Your task to perform on an android device: turn notification dots off Image 0: 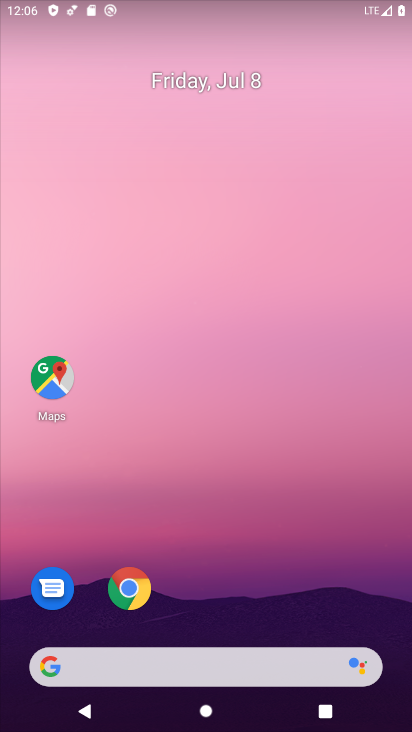
Step 0: drag from (203, 625) to (202, 2)
Your task to perform on an android device: turn notification dots off Image 1: 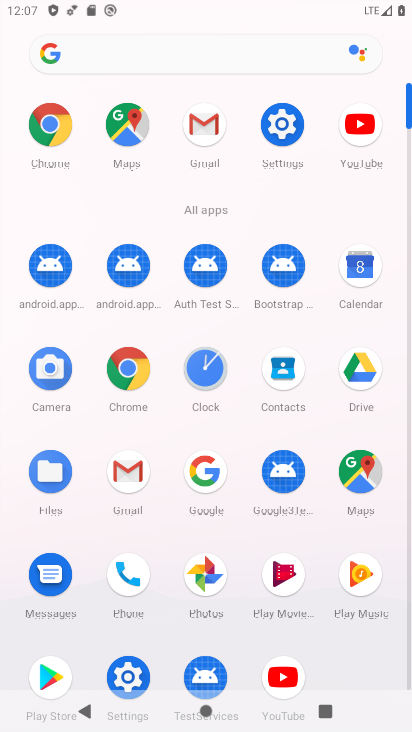
Step 1: click (284, 117)
Your task to perform on an android device: turn notification dots off Image 2: 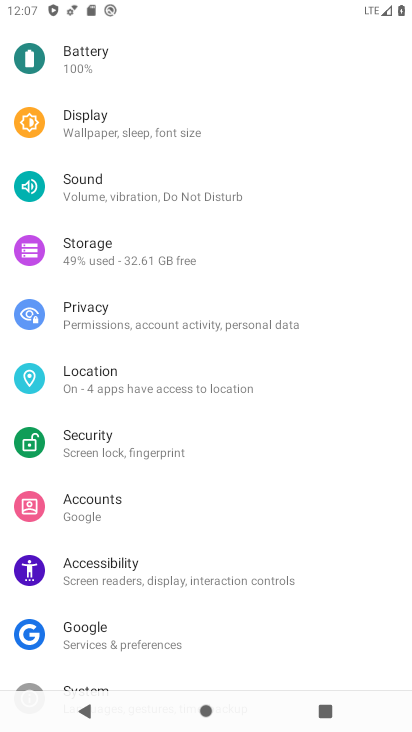
Step 2: drag from (172, 134) to (199, 550)
Your task to perform on an android device: turn notification dots off Image 3: 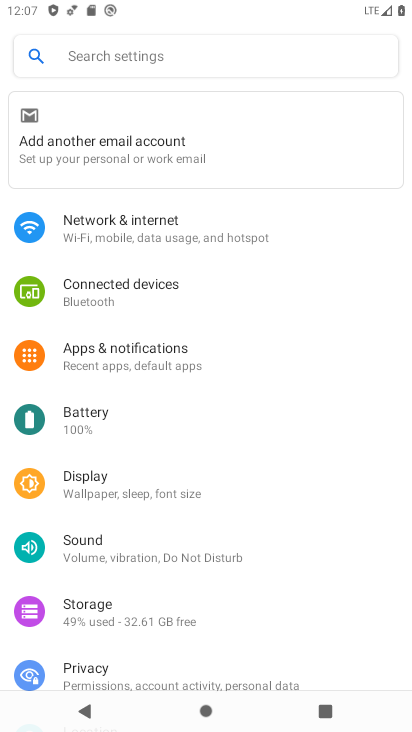
Step 3: click (137, 354)
Your task to perform on an android device: turn notification dots off Image 4: 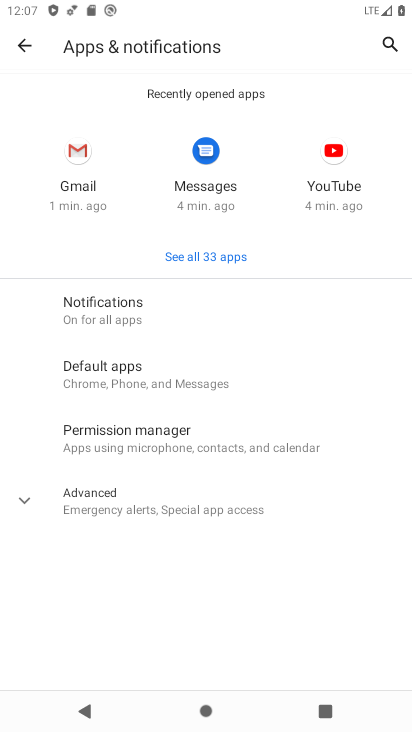
Step 4: click (59, 309)
Your task to perform on an android device: turn notification dots off Image 5: 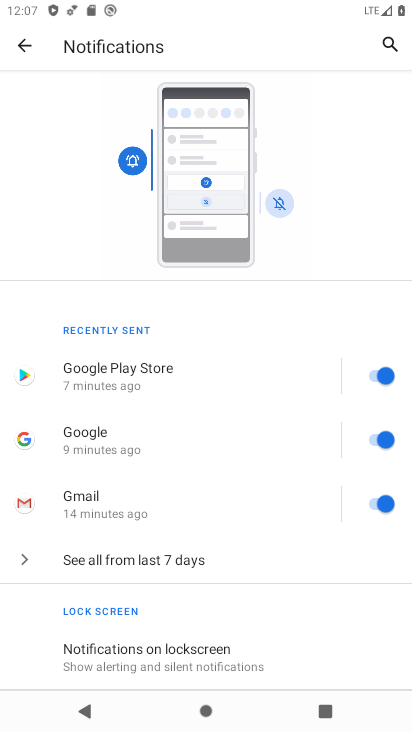
Step 5: drag from (260, 637) to (314, 201)
Your task to perform on an android device: turn notification dots off Image 6: 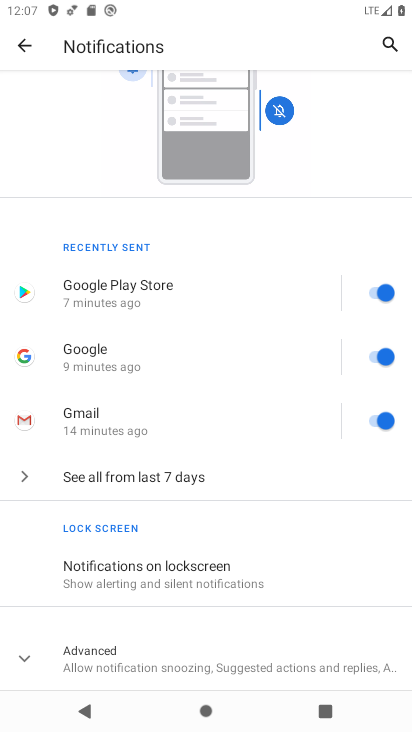
Step 6: click (32, 656)
Your task to perform on an android device: turn notification dots off Image 7: 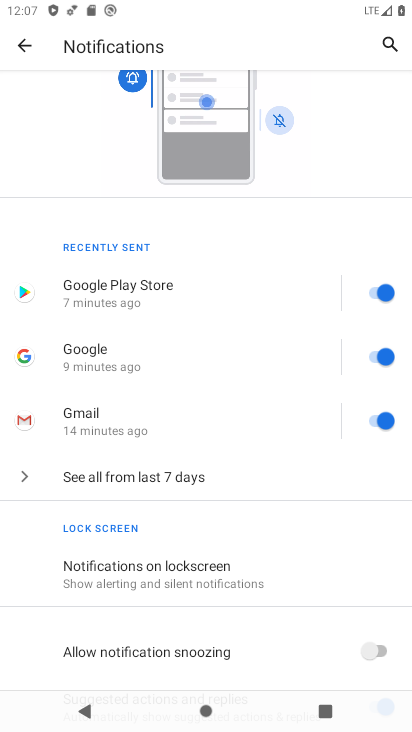
Step 7: task complete